Your task to perform on an android device: turn notification dots off Image 0: 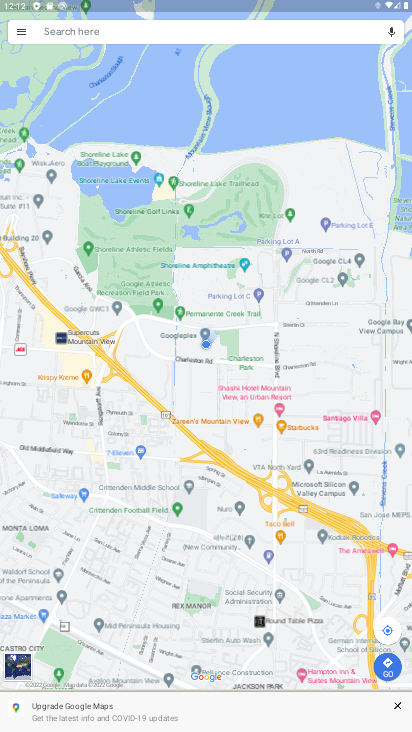
Step 0: press home button
Your task to perform on an android device: turn notification dots off Image 1: 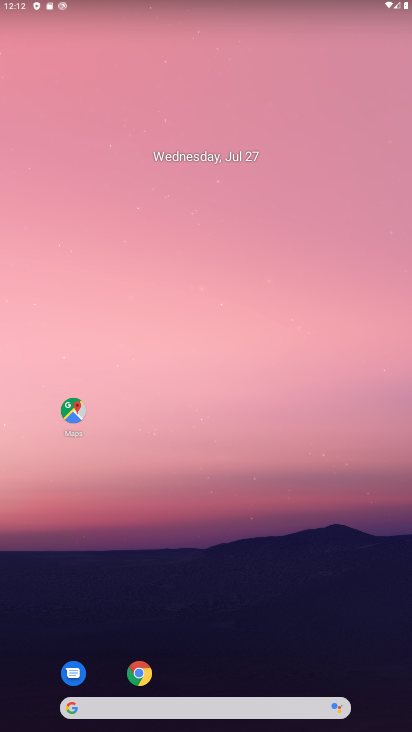
Step 1: drag from (239, 363) to (229, 24)
Your task to perform on an android device: turn notification dots off Image 2: 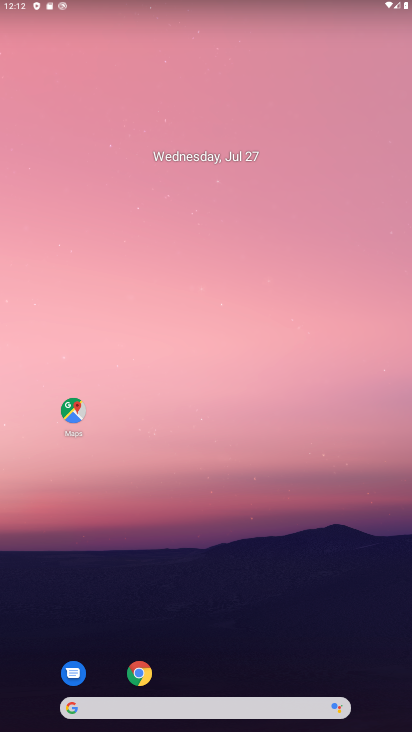
Step 2: drag from (287, 620) to (243, 44)
Your task to perform on an android device: turn notification dots off Image 3: 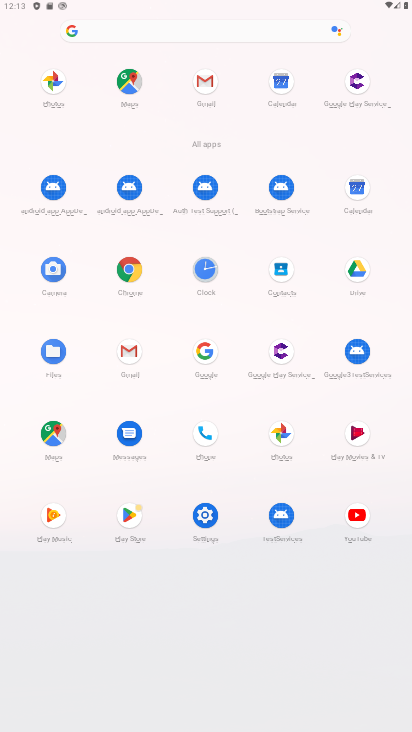
Step 3: click (213, 513)
Your task to perform on an android device: turn notification dots off Image 4: 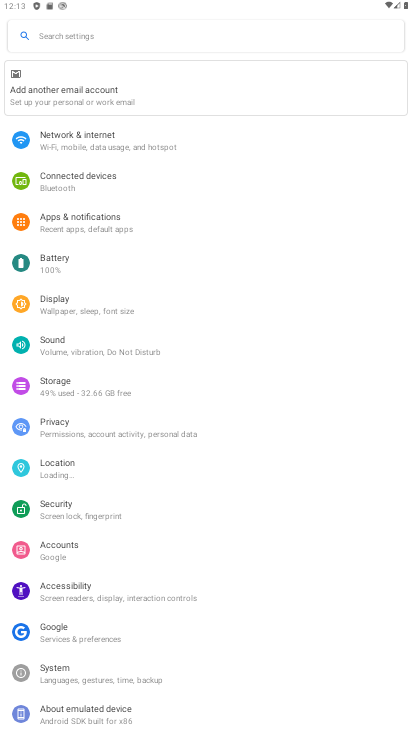
Step 4: click (101, 219)
Your task to perform on an android device: turn notification dots off Image 5: 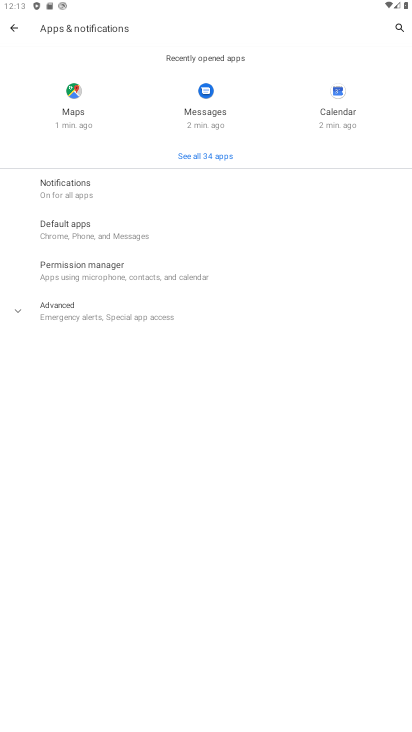
Step 5: click (56, 199)
Your task to perform on an android device: turn notification dots off Image 6: 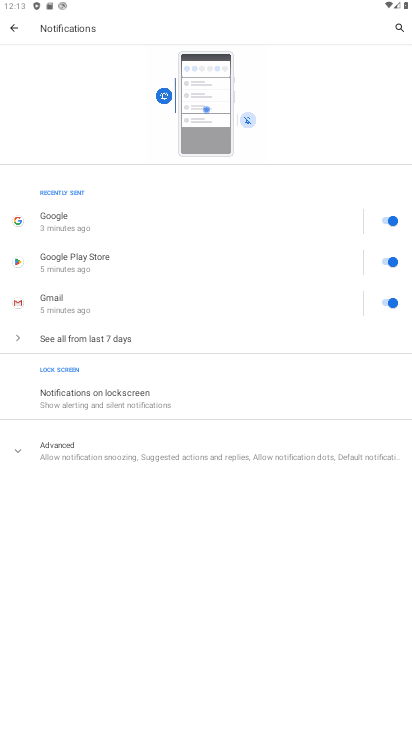
Step 6: click (104, 446)
Your task to perform on an android device: turn notification dots off Image 7: 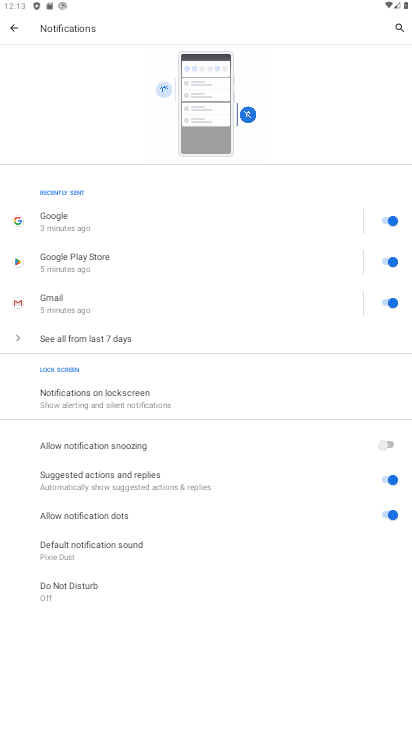
Step 7: click (389, 504)
Your task to perform on an android device: turn notification dots off Image 8: 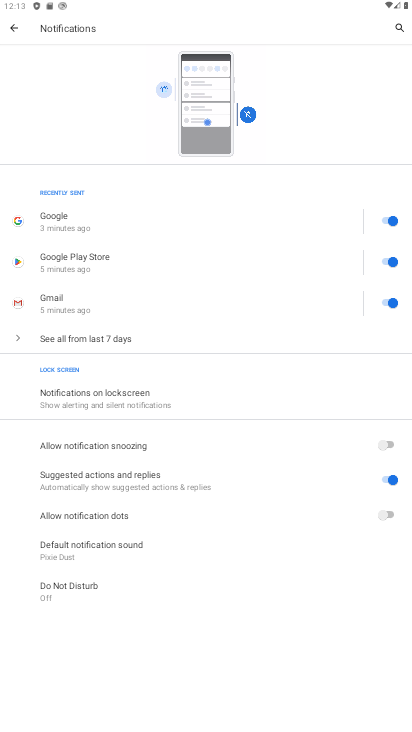
Step 8: task complete